Your task to perform on an android device: Do I have any events today? Image 0: 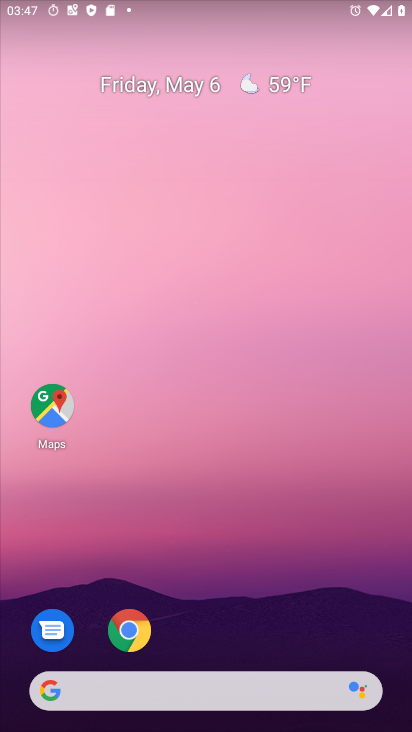
Step 0: drag from (214, 417) to (214, 210)
Your task to perform on an android device: Do I have any events today? Image 1: 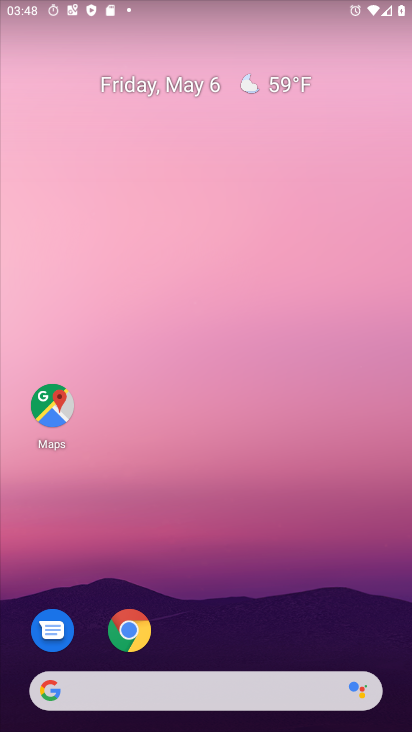
Step 1: drag from (231, 629) to (231, 220)
Your task to perform on an android device: Do I have any events today? Image 2: 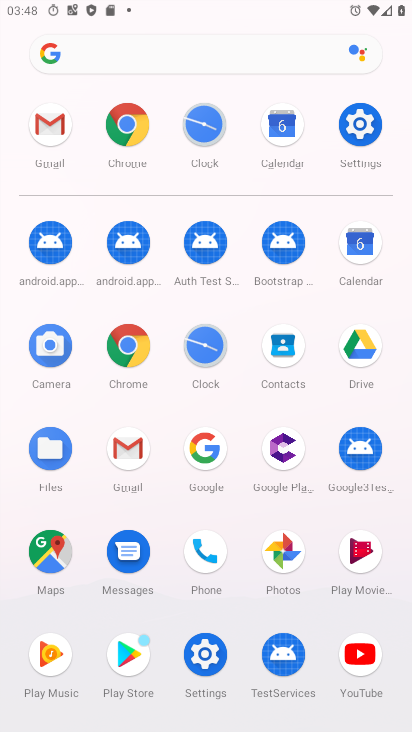
Step 2: click (357, 252)
Your task to perform on an android device: Do I have any events today? Image 3: 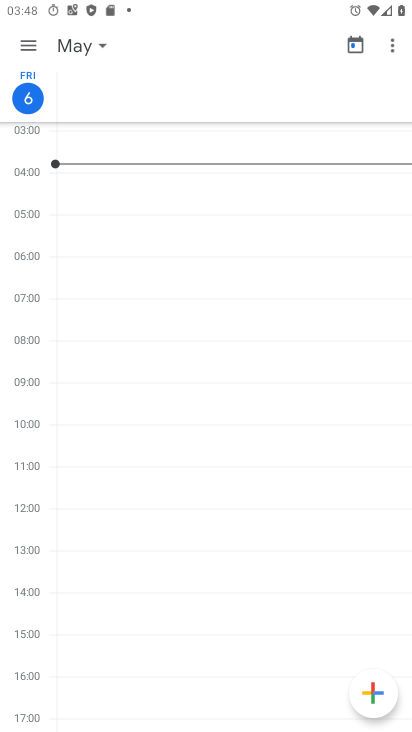
Step 3: click (89, 53)
Your task to perform on an android device: Do I have any events today? Image 4: 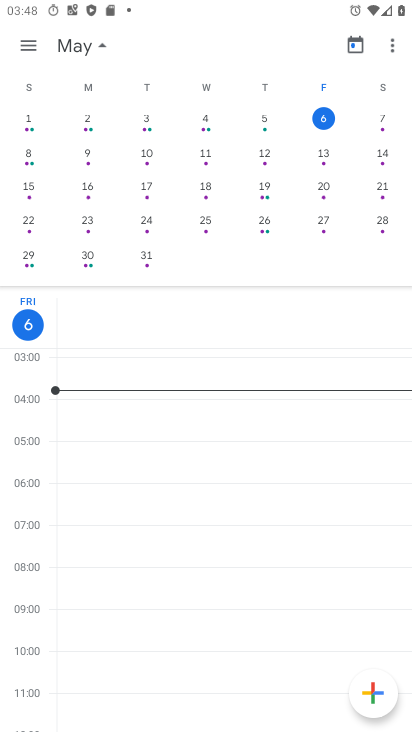
Step 4: click (326, 109)
Your task to perform on an android device: Do I have any events today? Image 5: 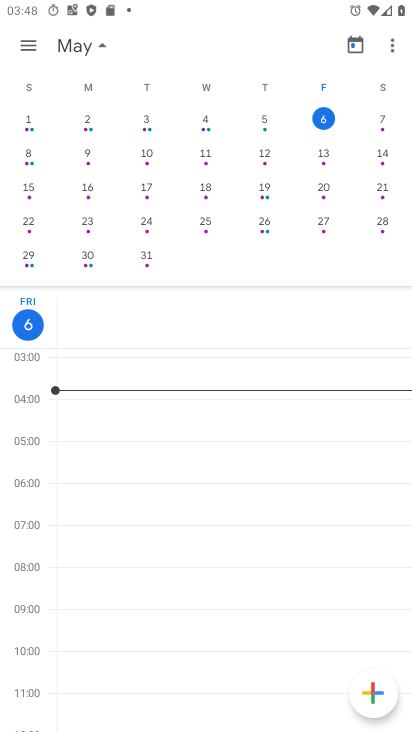
Step 5: task complete